Your task to perform on an android device: turn on the 12-hour format for clock Image 0: 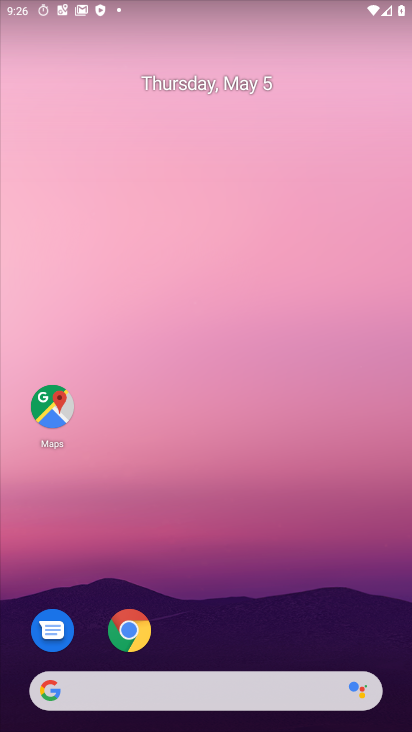
Step 0: drag from (190, 550) to (108, 83)
Your task to perform on an android device: turn on the 12-hour format for clock Image 1: 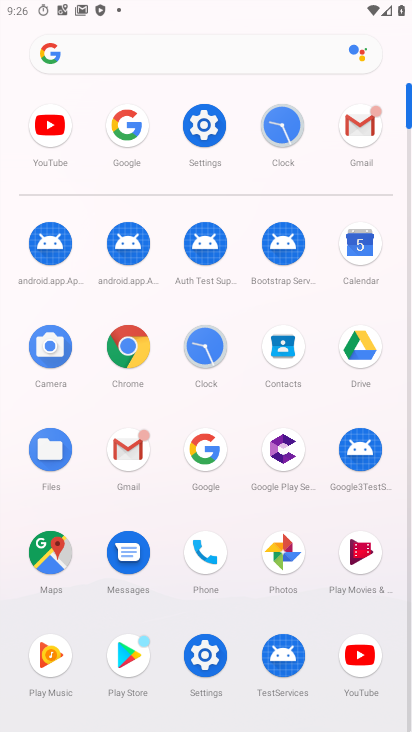
Step 1: click (285, 142)
Your task to perform on an android device: turn on the 12-hour format for clock Image 2: 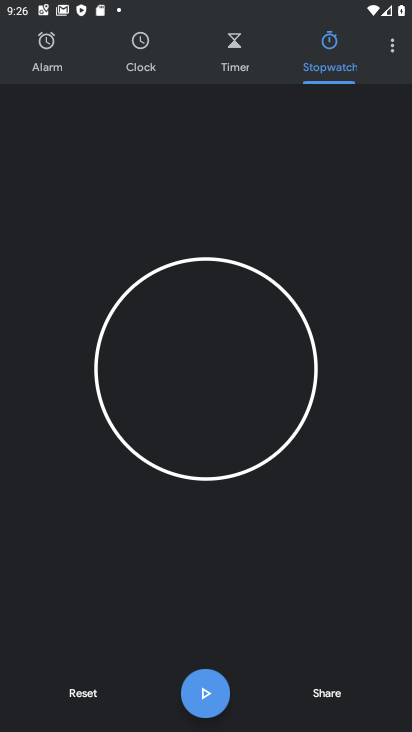
Step 2: click (392, 45)
Your task to perform on an android device: turn on the 12-hour format for clock Image 3: 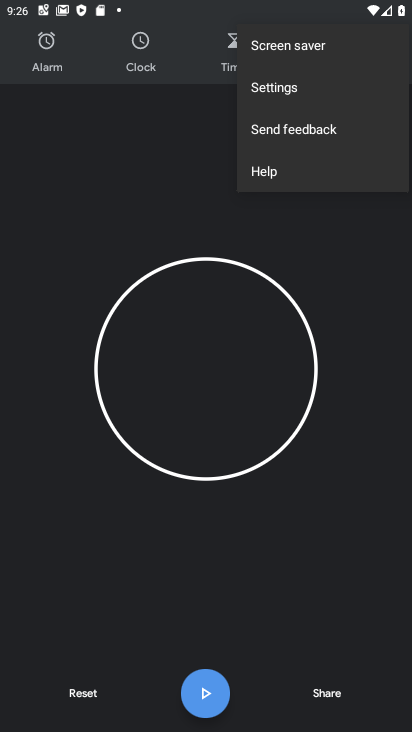
Step 3: click (263, 87)
Your task to perform on an android device: turn on the 12-hour format for clock Image 4: 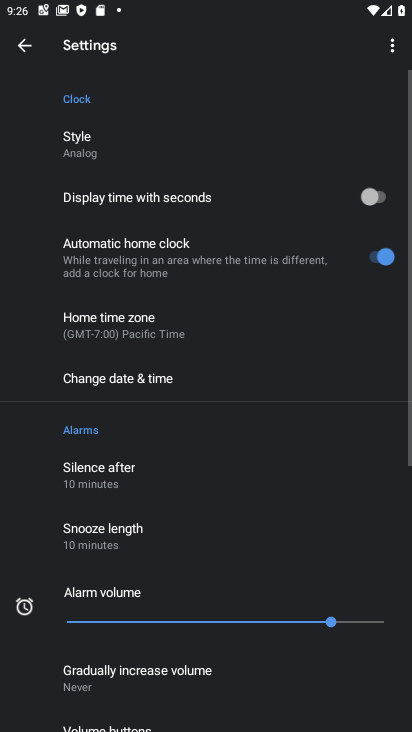
Step 4: drag from (138, 706) to (181, 217)
Your task to perform on an android device: turn on the 12-hour format for clock Image 5: 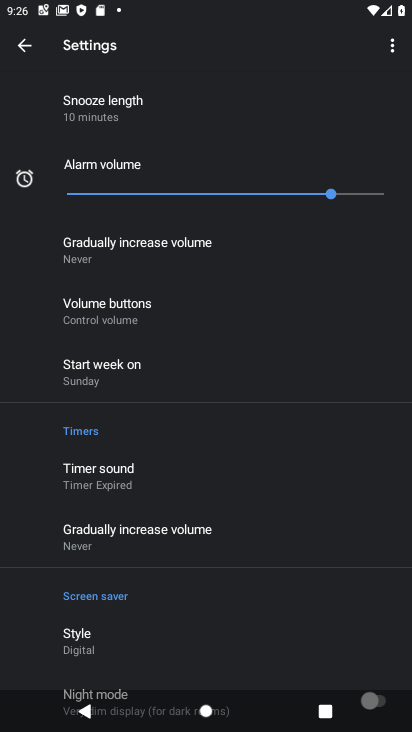
Step 5: drag from (170, 574) to (145, 178)
Your task to perform on an android device: turn on the 12-hour format for clock Image 6: 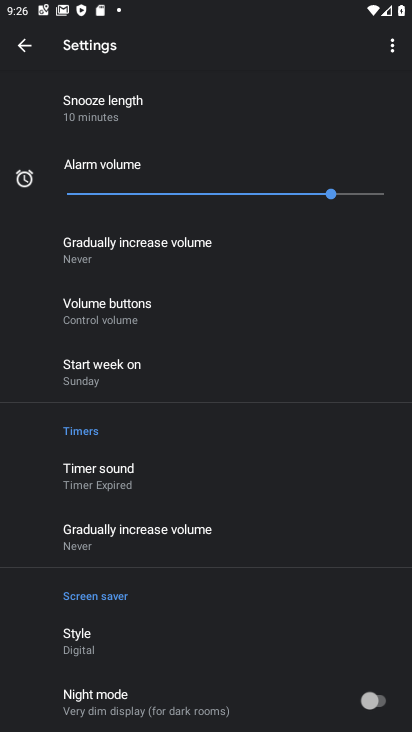
Step 6: drag from (148, 602) to (107, 197)
Your task to perform on an android device: turn on the 12-hour format for clock Image 7: 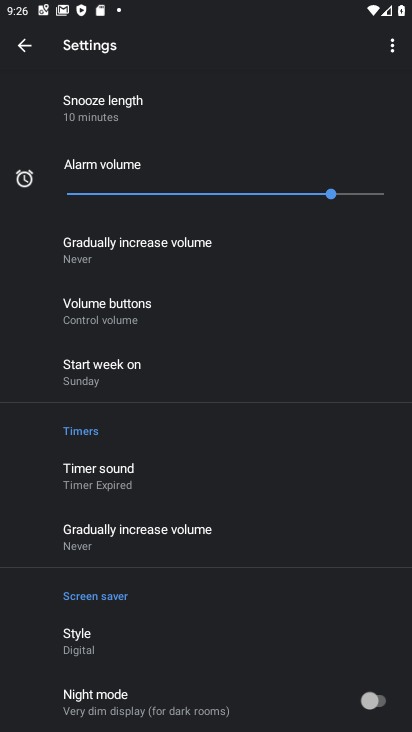
Step 7: drag from (107, 198) to (77, 604)
Your task to perform on an android device: turn on the 12-hour format for clock Image 8: 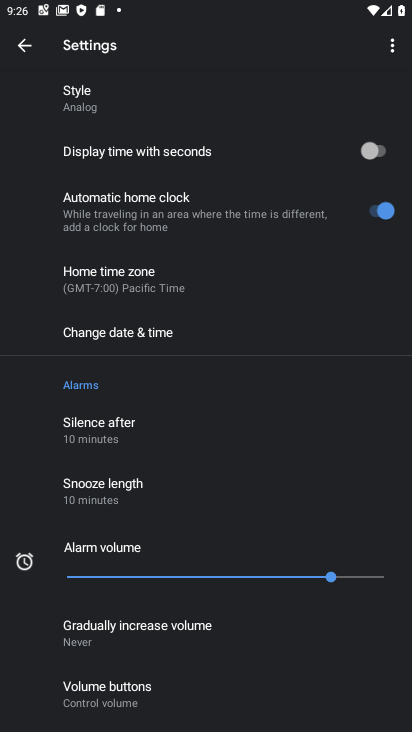
Step 8: click (115, 327)
Your task to perform on an android device: turn on the 12-hour format for clock Image 9: 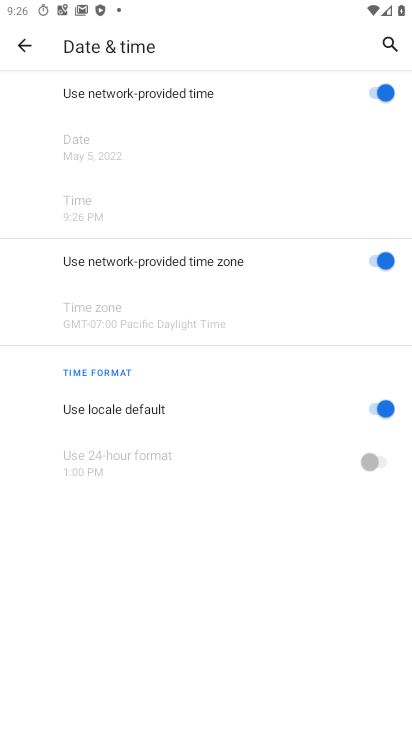
Step 9: task complete